Your task to perform on an android device: View the shopping cart on amazon. Add "dell xps" to the cart on amazon, then select checkout. Image 0: 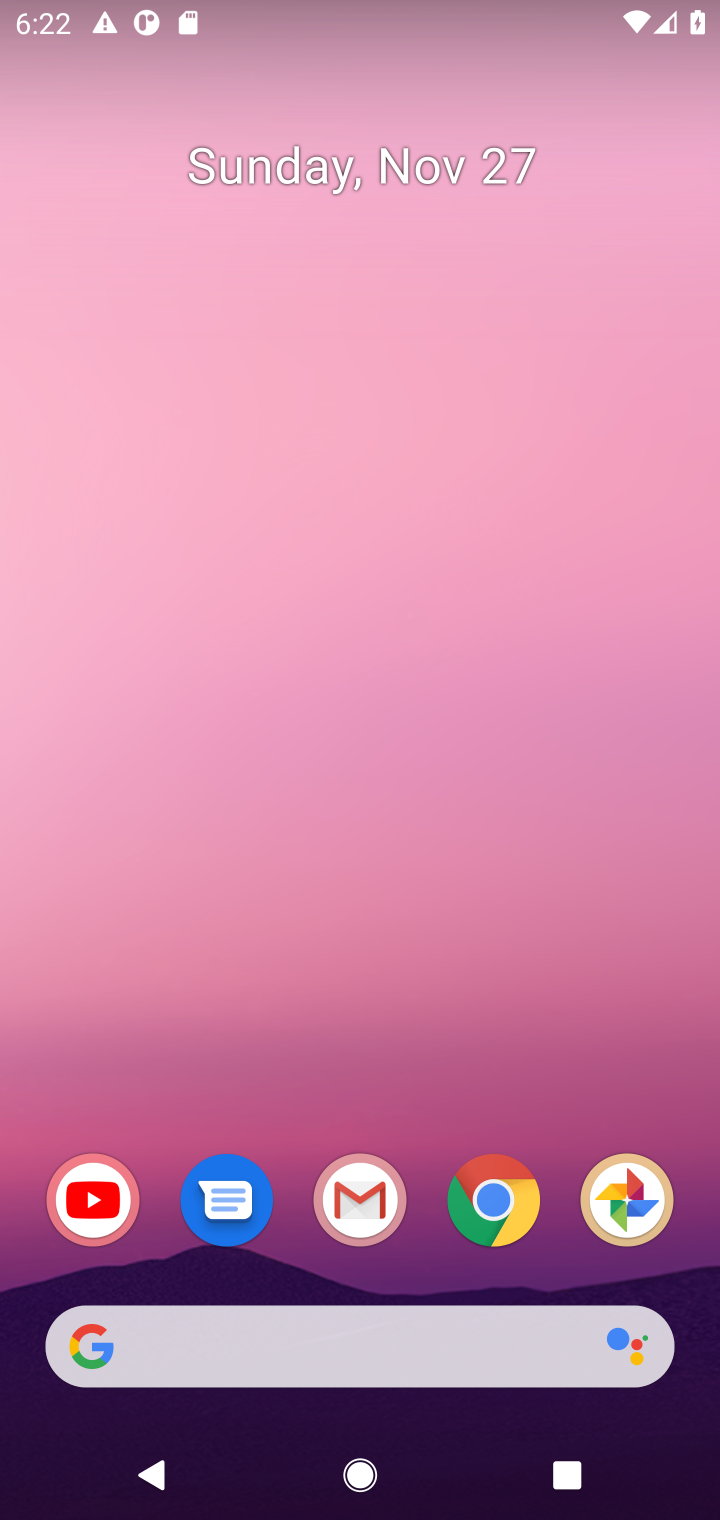
Step 0: click (510, 1207)
Your task to perform on an android device: View the shopping cart on amazon. Add "dell xps" to the cart on amazon, then select checkout. Image 1: 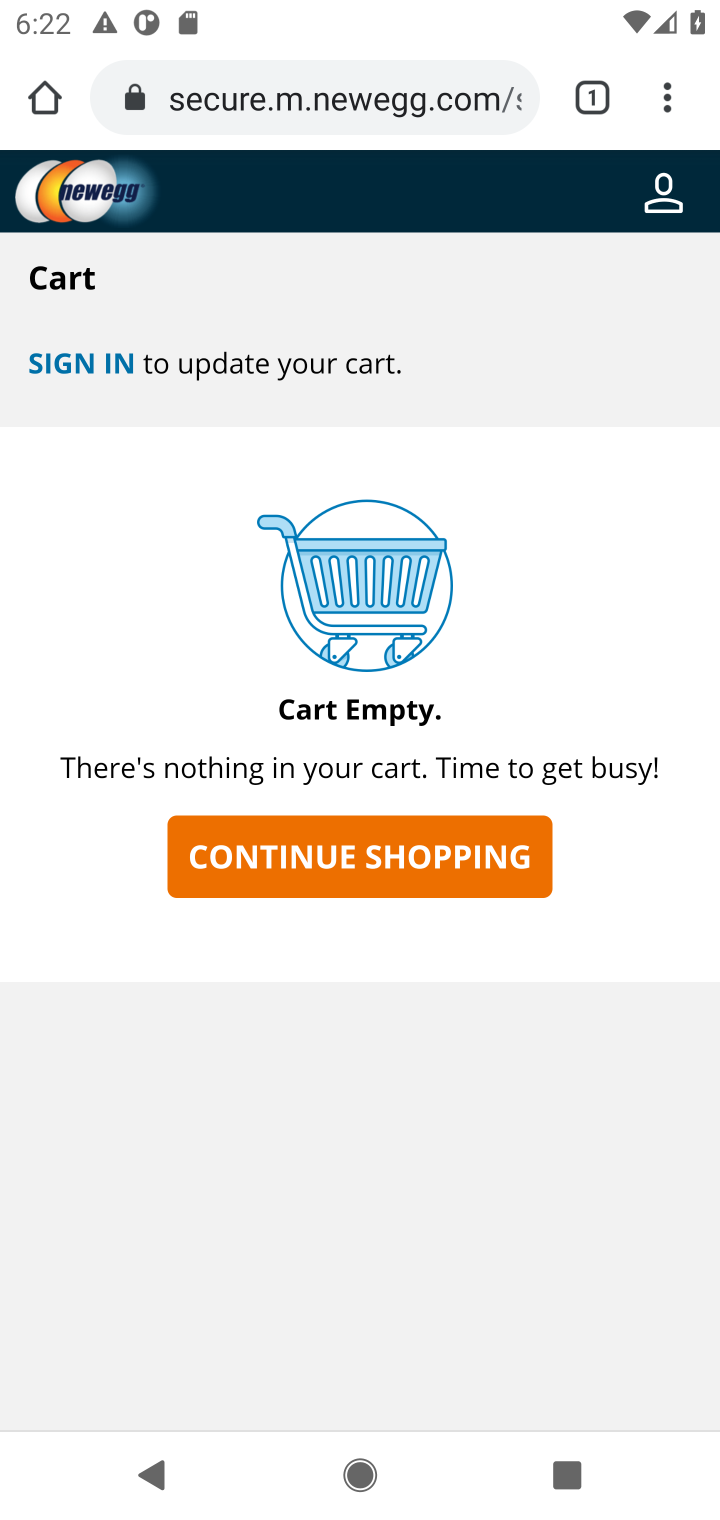
Step 1: click (291, 117)
Your task to perform on an android device: View the shopping cart on amazon. Add "dell xps" to the cart on amazon, then select checkout. Image 2: 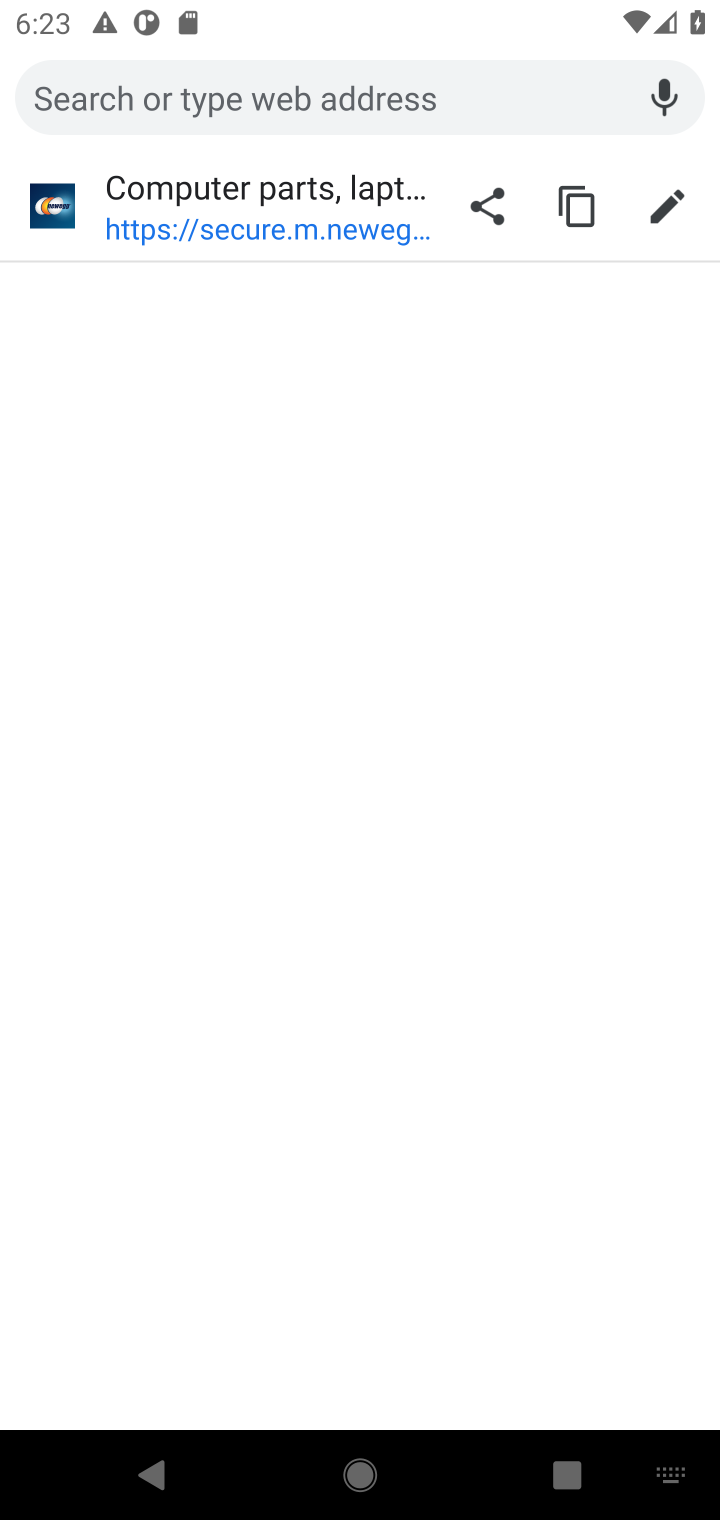
Step 2: type "amazon.com"
Your task to perform on an android device: View the shopping cart on amazon. Add "dell xps" to the cart on amazon, then select checkout. Image 3: 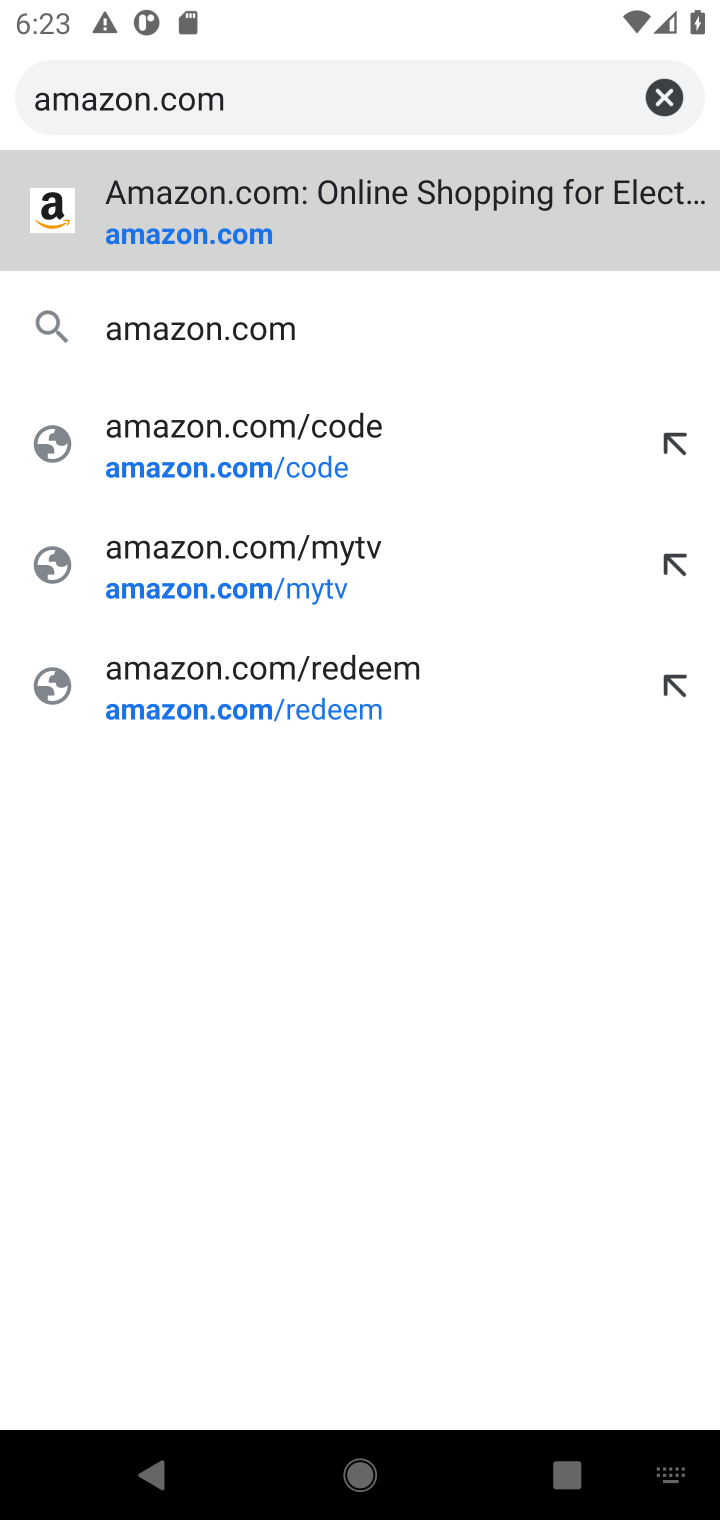
Step 3: click (196, 245)
Your task to perform on an android device: View the shopping cart on amazon. Add "dell xps" to the cart on amazon, then select checkout. Image 4: 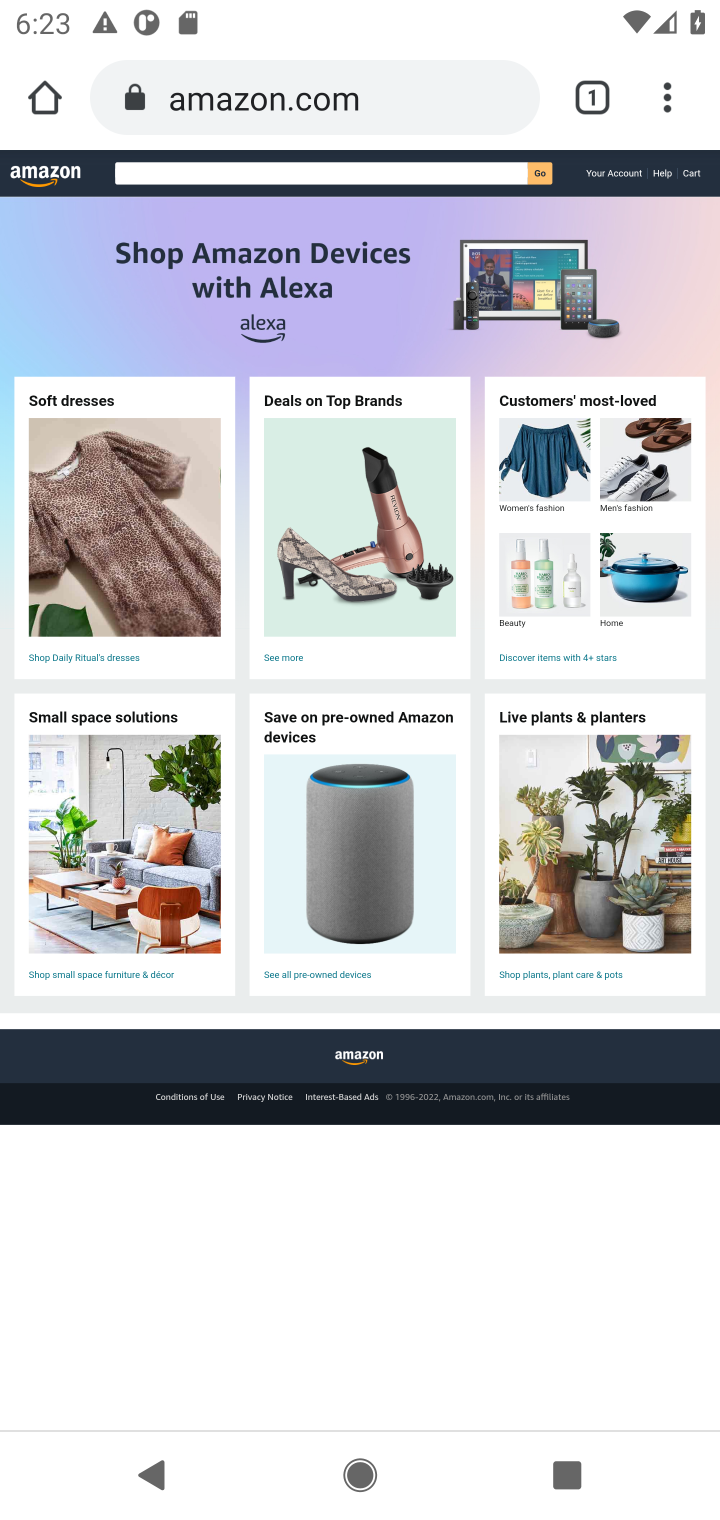
Step 4: drag from (656, 231) to (672, 493)
Your task to perform on an android device: View the shopping cart on amazon. Add "dell xps" to the cart on amazon, then select checkout. Image 5: 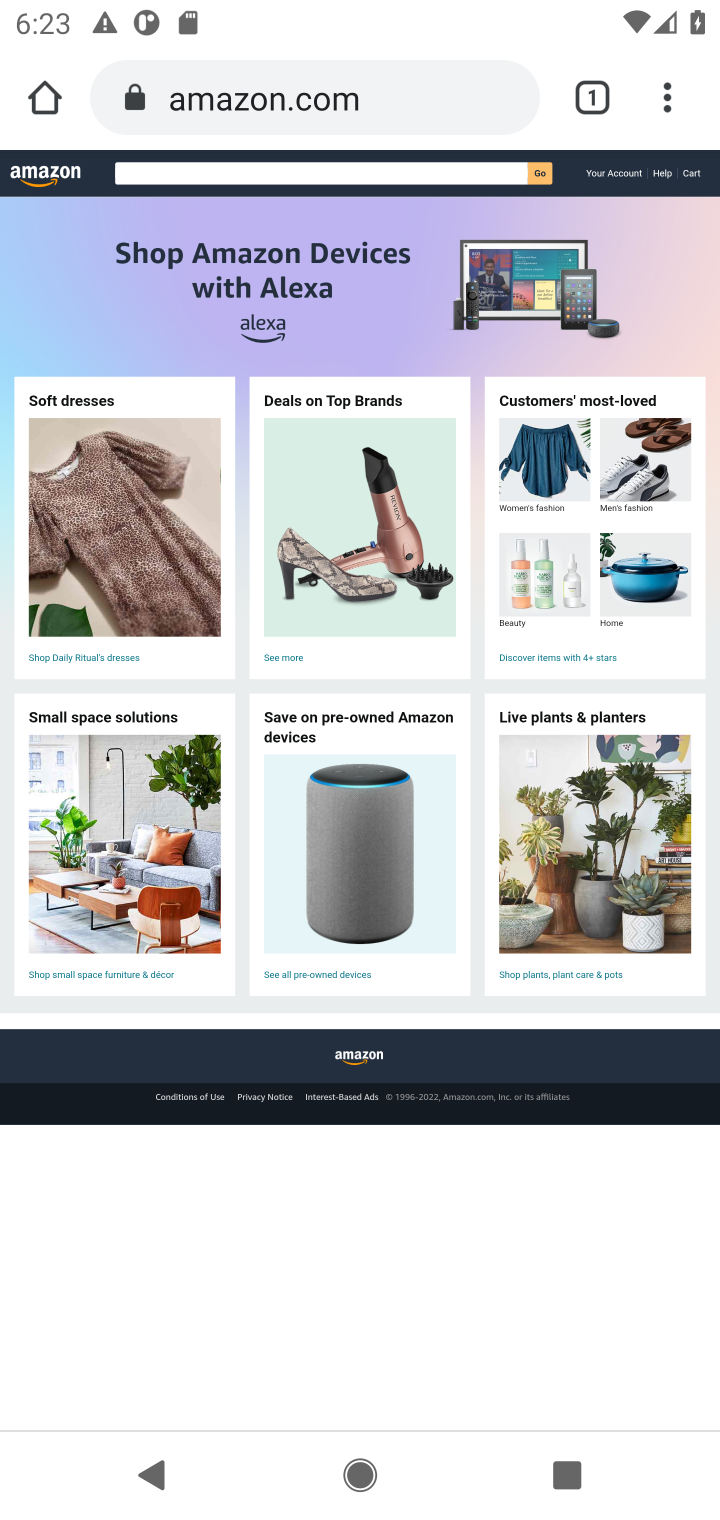
Step 5: click (696, 183)
Your task to perform on an android device: View the shopping cart on amazon. Add "dell xps" to the cart on amazon, then select checkout. Image 6: 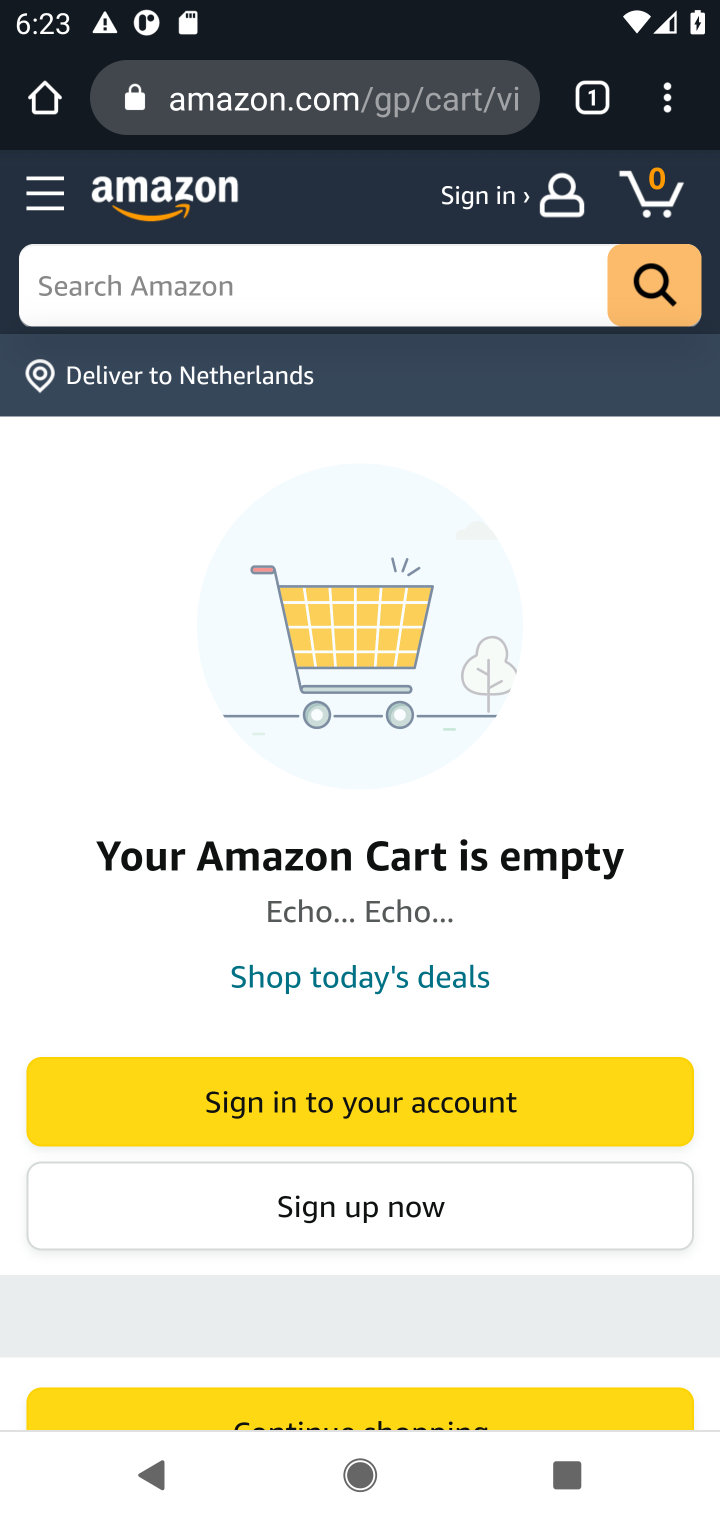
Step 6: drag from (616, 975) to (616, 830)
Your task to perform on an android device: View the shopping cart on amazon. Add "dell xps" to the cart on amazon, then select checkout. Image 7: 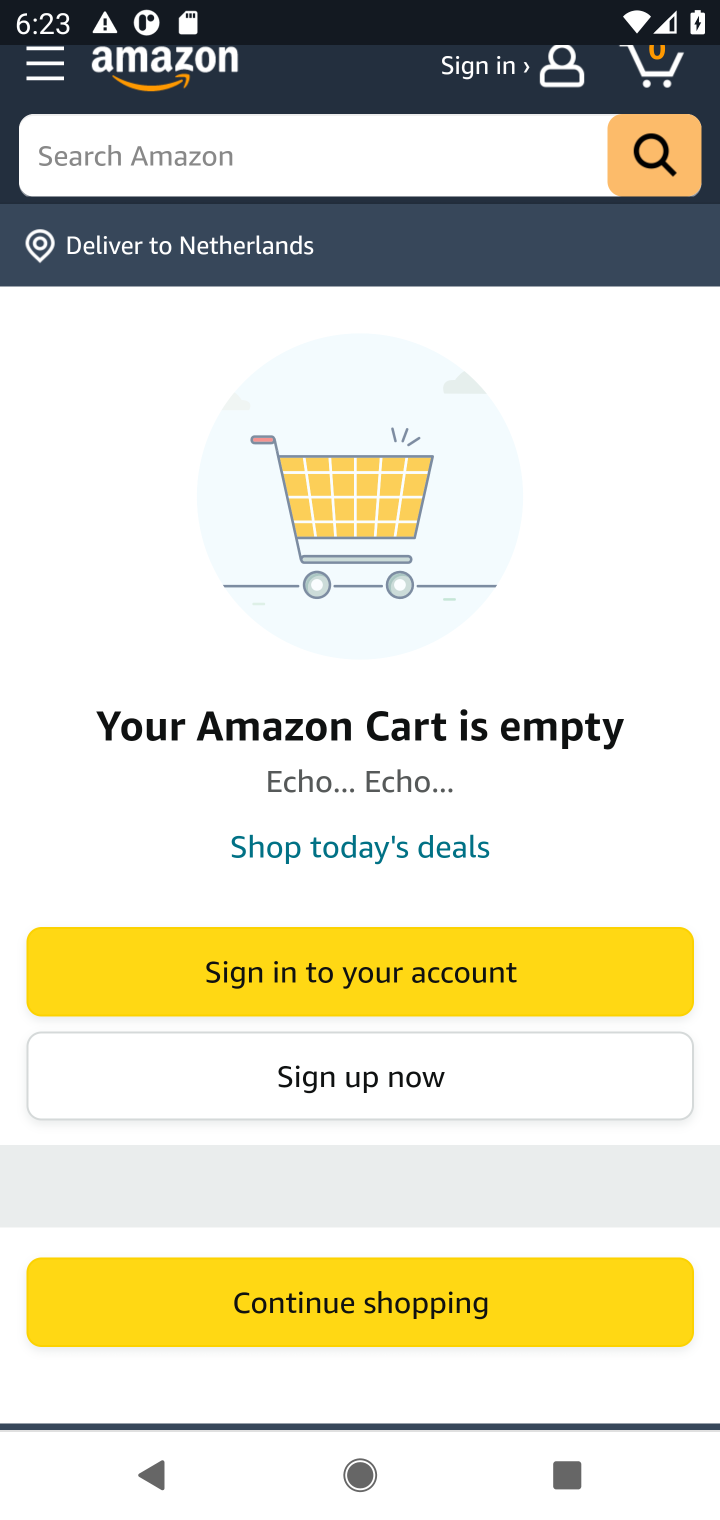
Step 7: click (261, 148)
Your task to perform on an android device: View the shopping cart on amazon. Add "dell xps" to the cart on amazon, then select checkout. Image 8: 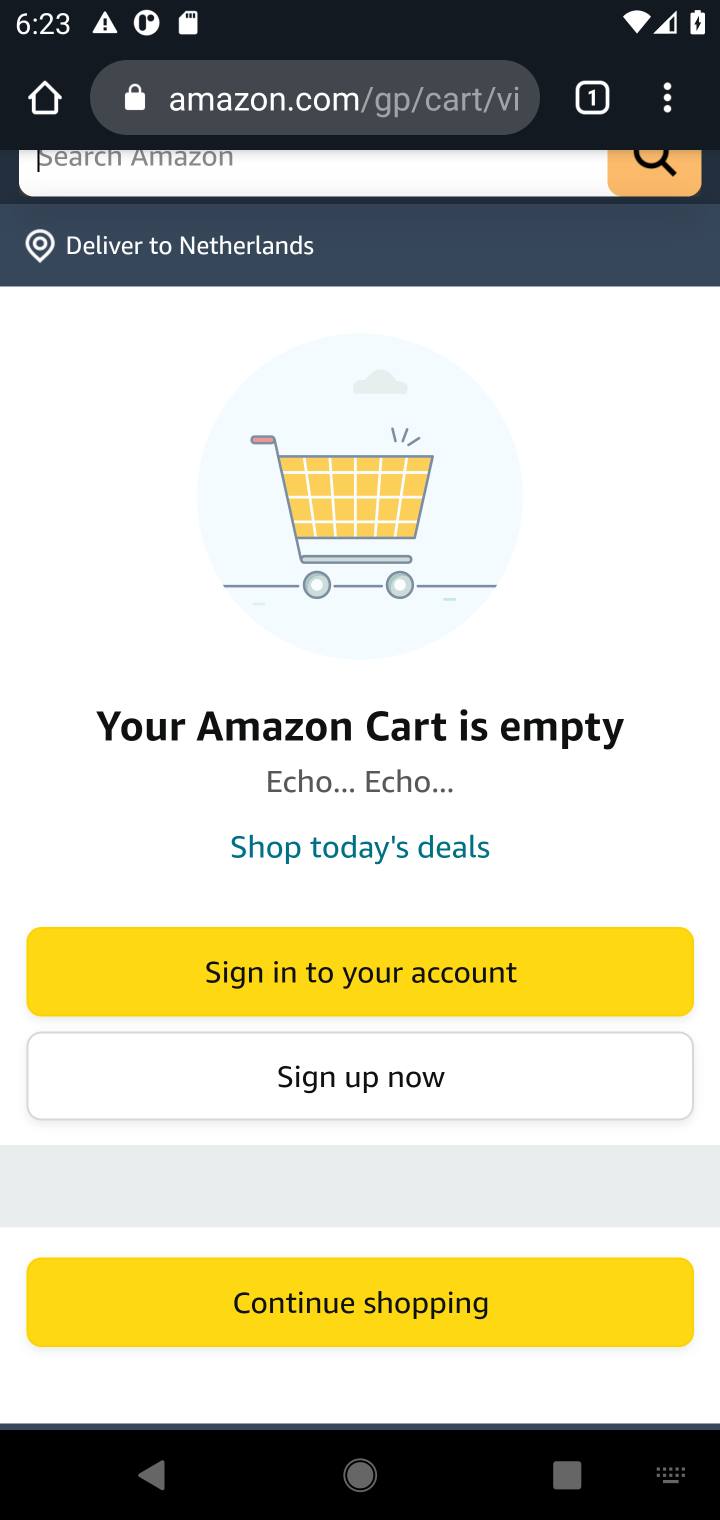
Step 8: type "dell xps"
Your task to perform on an android device: View the shopping cart on amazon. Add "dell xps" to the cart on amazon, then select checkout. Image 9: 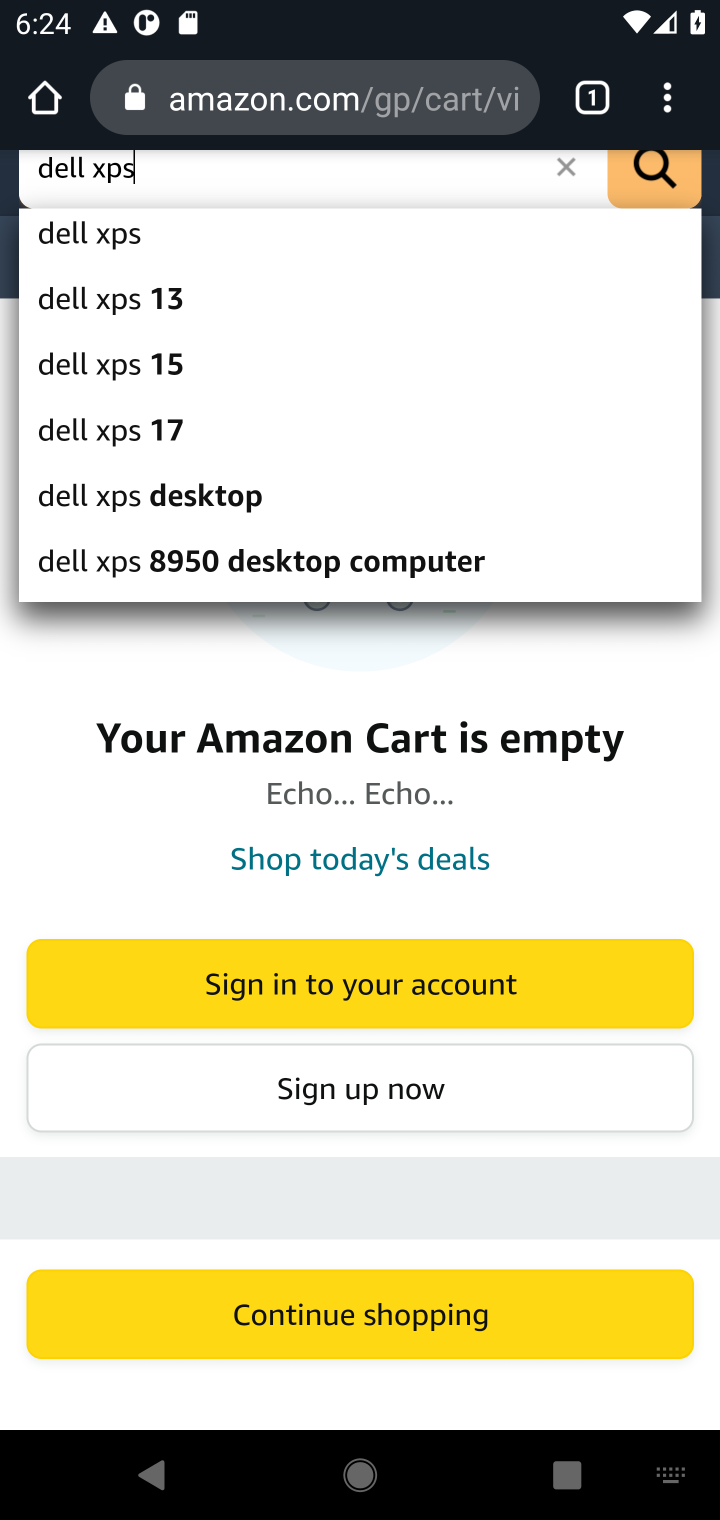
Step 9: click (77, 241)
Your task to perform on an android device: View the shopping cart on amazon. Add "dell xps" to the cart on amazon, then select checkout. Image 10: 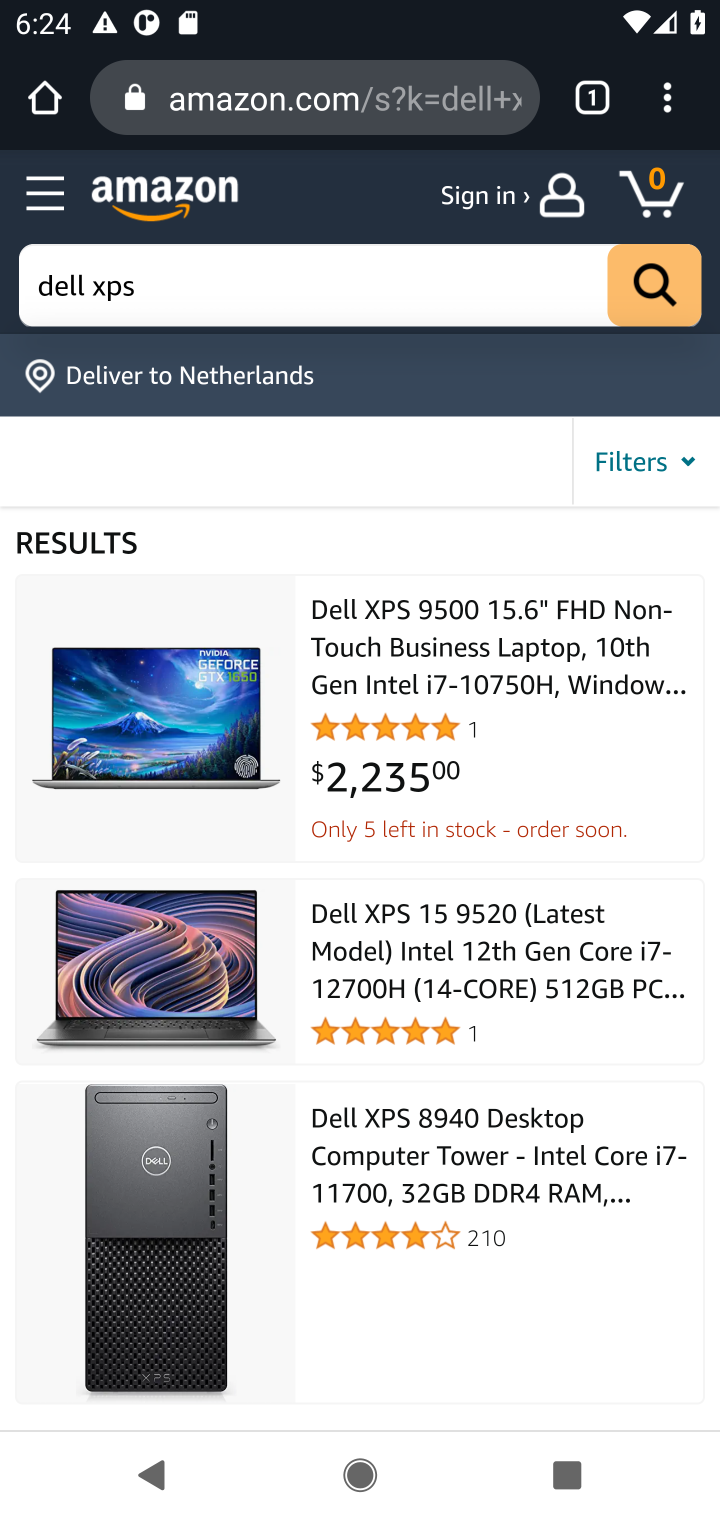
Step 10: click (200, 743)
Your task to perform on an android device: View the shopping cart on amazon. Add "dell xps" to the cart on amazon, then select checkout. Image 11: 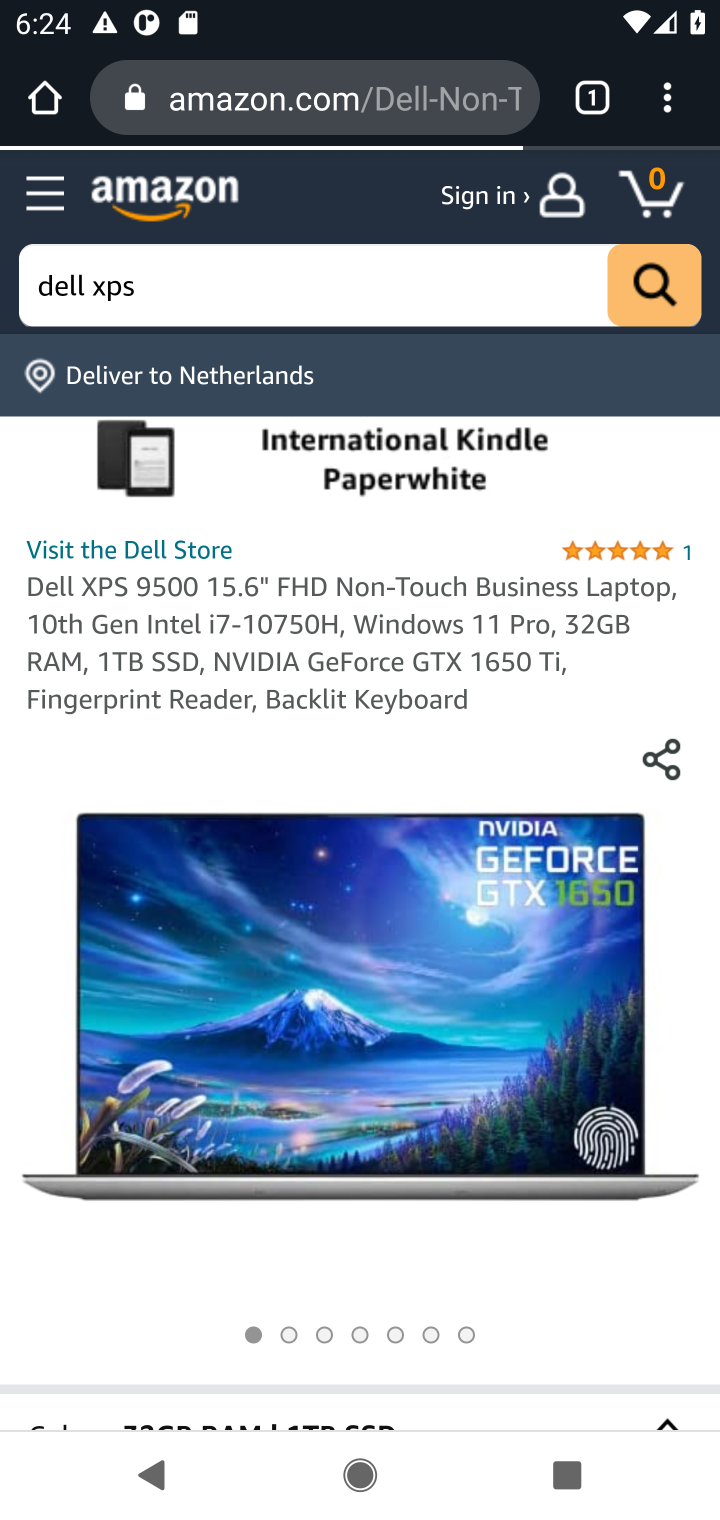
Step 11: drag from (268, 938) to (273, 335)
Your task to perform on an android device: View the shopping cart on amazon. Add "dell xps" to the cart on amazon, then select checkout. Image 12: 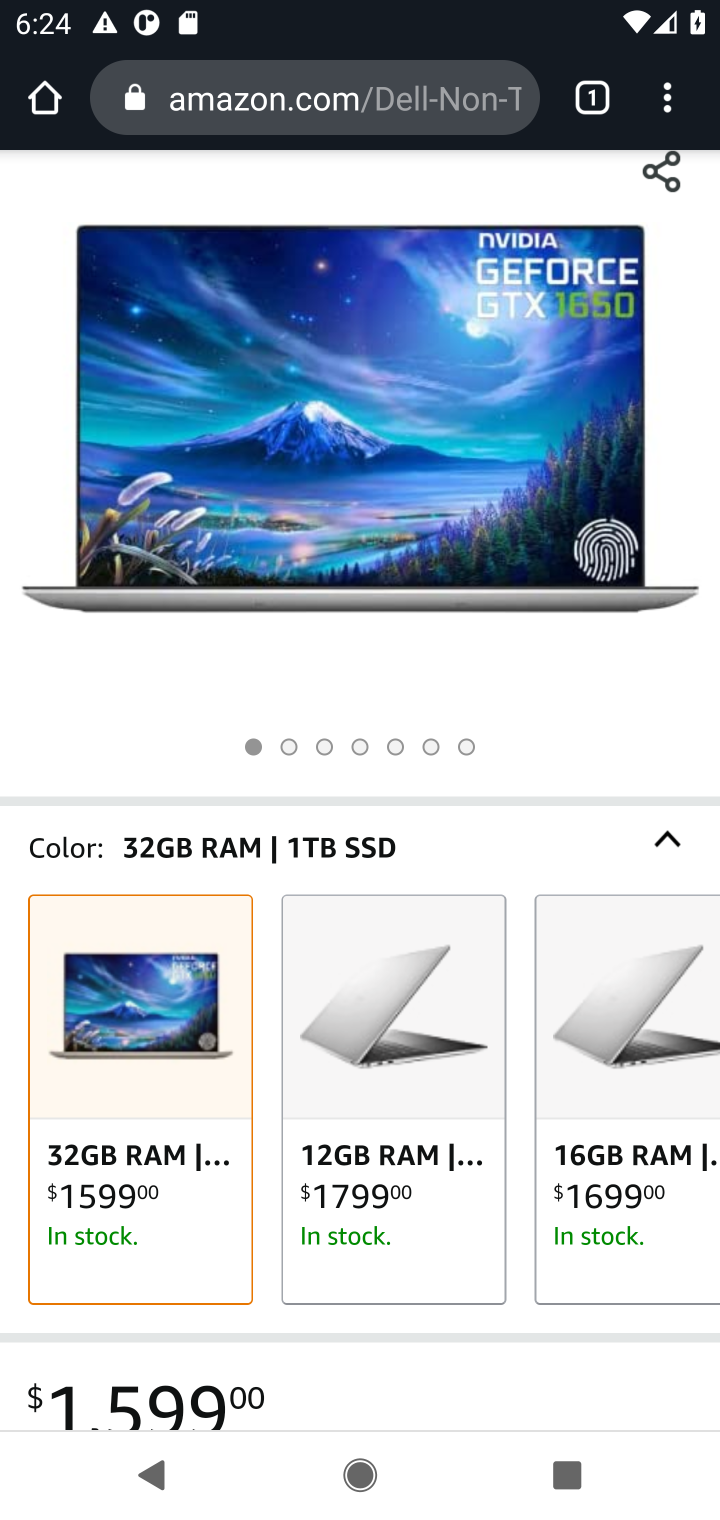
Step 12: drag from (310, 978) to (248, 341)
Your task to perform on an android device: View the shopping cart on amazon. Add "dell xps" to the cart on amazon, then select checkout. Image 13: 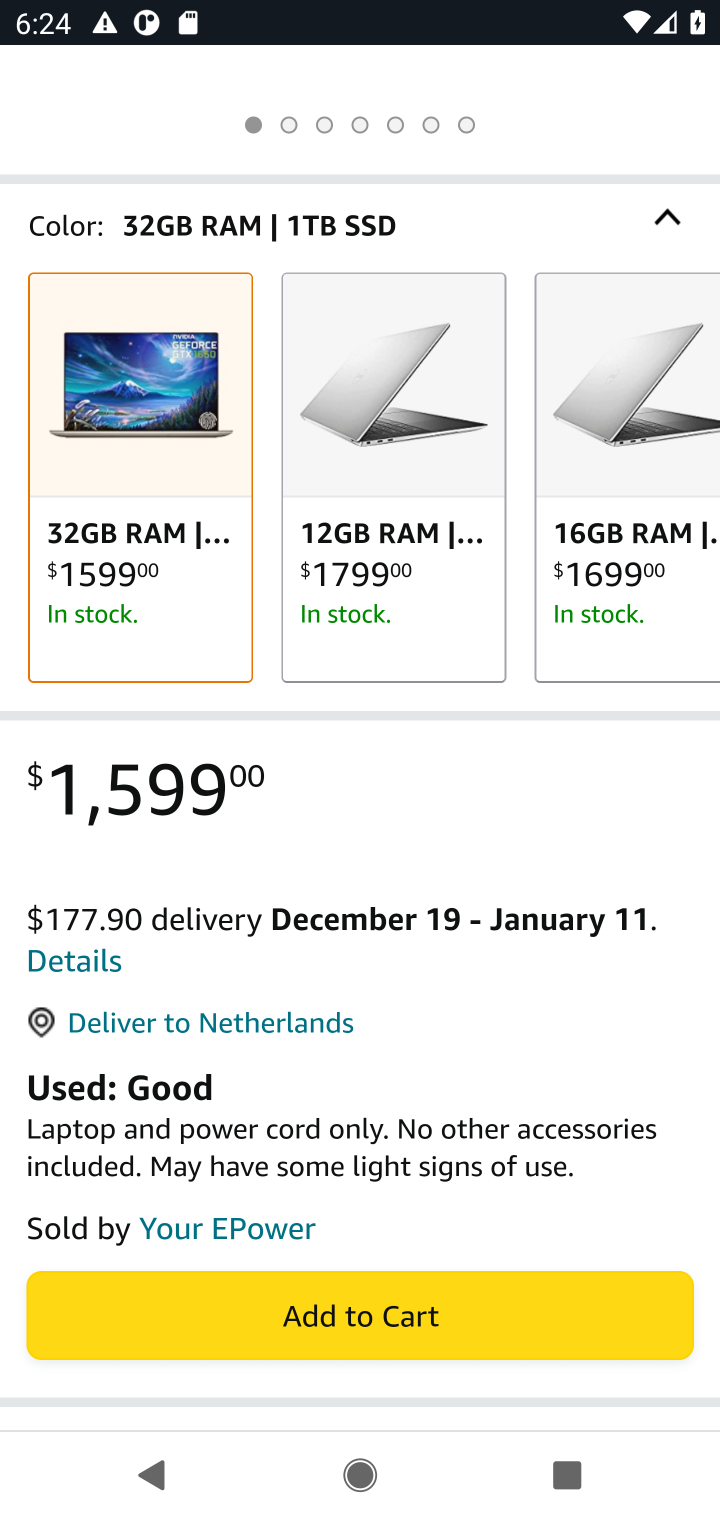
Step 13: click (343, 1333)
Your task to perform on an android device: View the shopping cart on amazon. Add "dell xps" to the cart on amazon, then select checkout. Image 14: 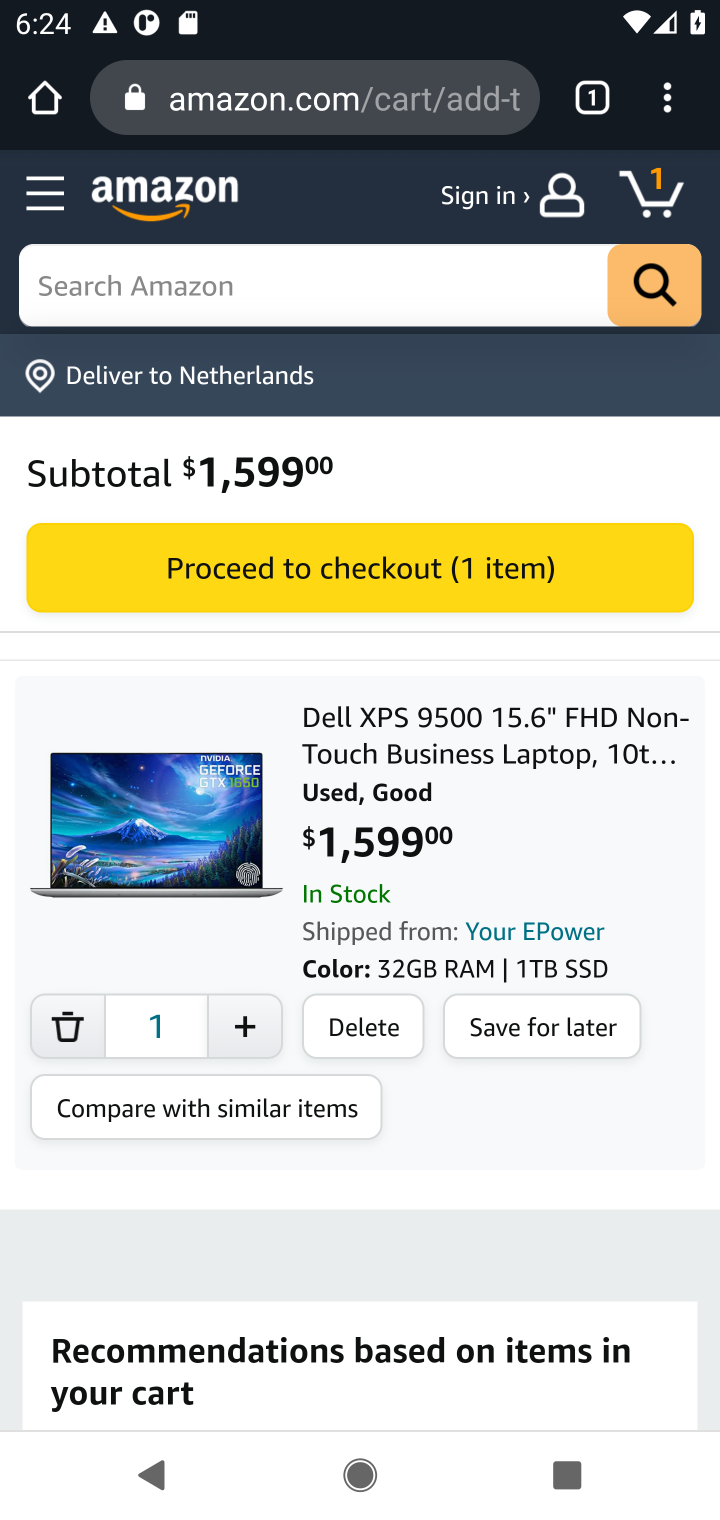
Step 14: click (308, 577)
Your task to perform on an android device: View the shopping cart on amazon. Add "dell xps" to the cart on amazon, then select checkout. Image 15: 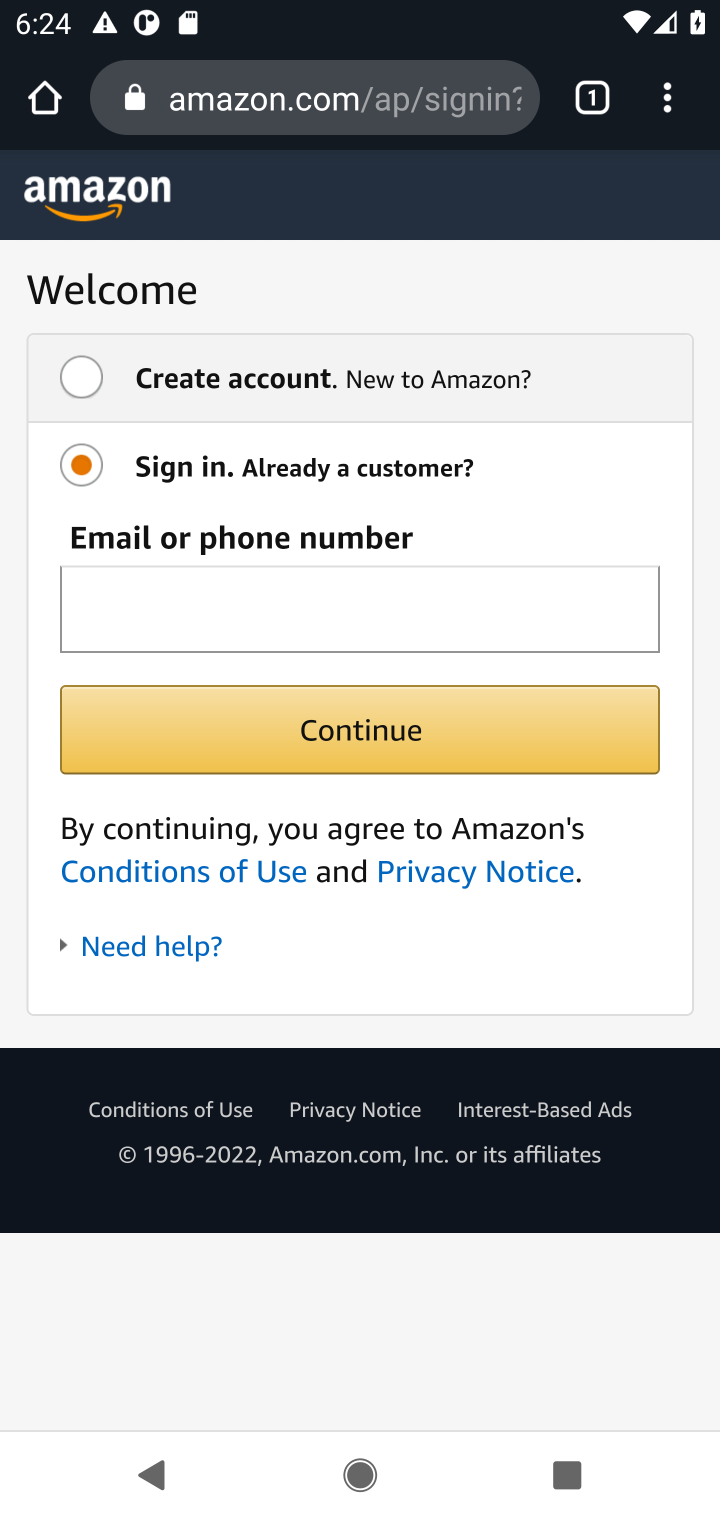
Step 15: task complete